Your task to perform on an android device: turn notification dots on Image 0: 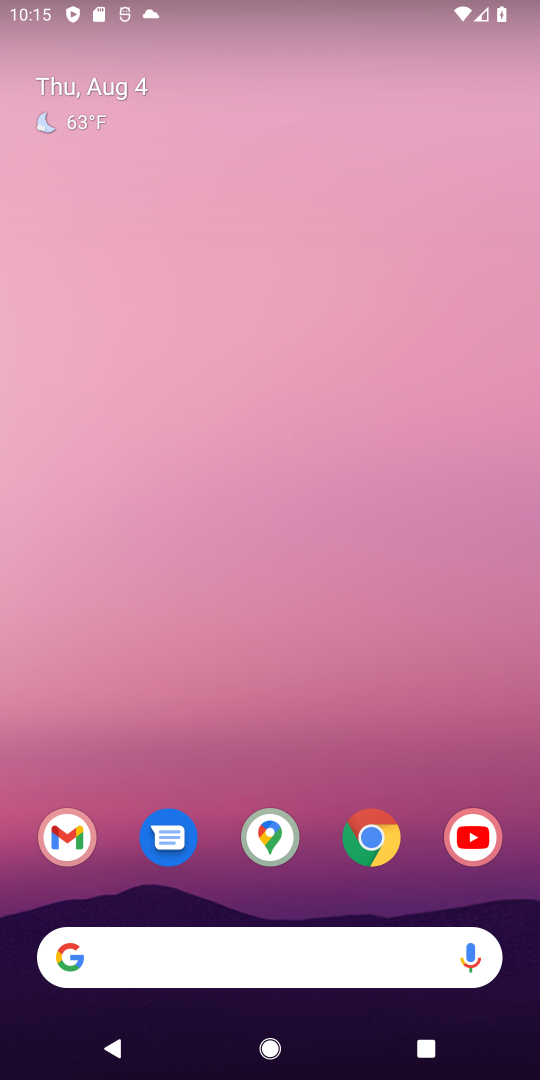
Step 0: drag from (174, 740) to (283, 175)
Your task to perform on an android device: turn notification dots on Image 1: 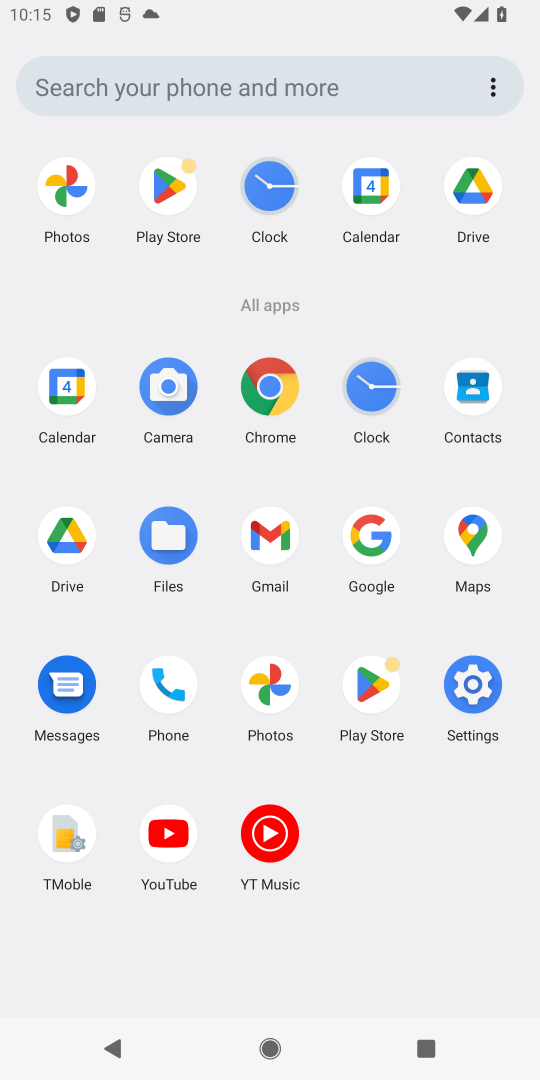
Step 1: click (478, 683)
Your task to perform on an android device: turn notification dots on Image 2: 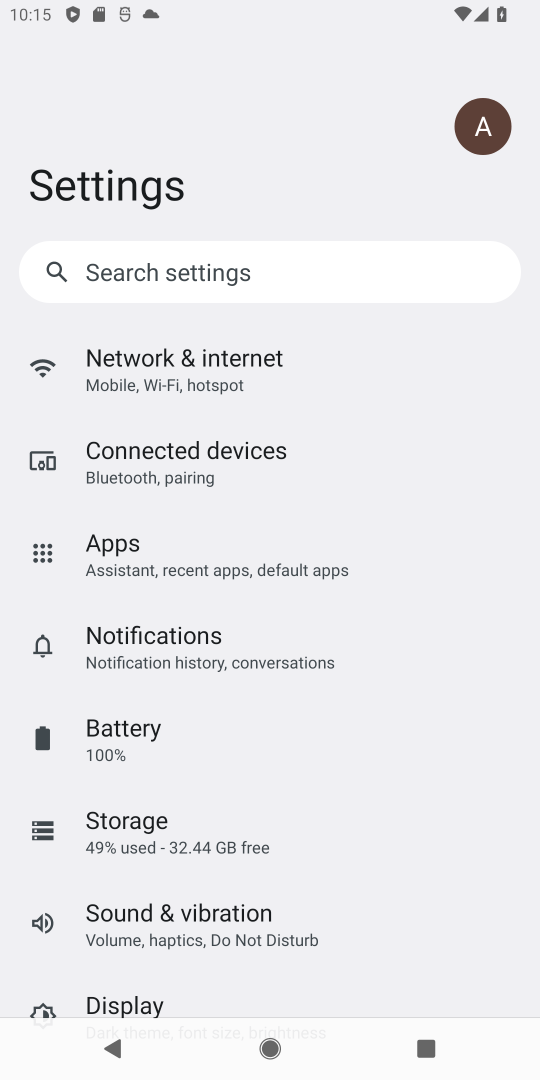
Step 2: click (213, 255)
Your task to perform on an android device: turn notification dots on Image 3: 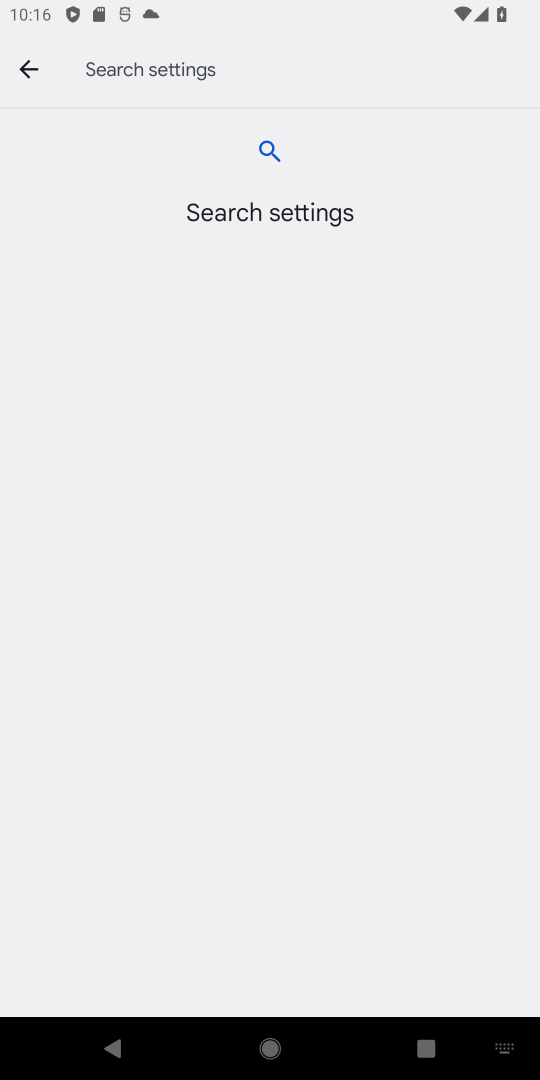
Step 3: type " notification dots  "
Your task to perform on an android device: turn notification dots on Image 4: 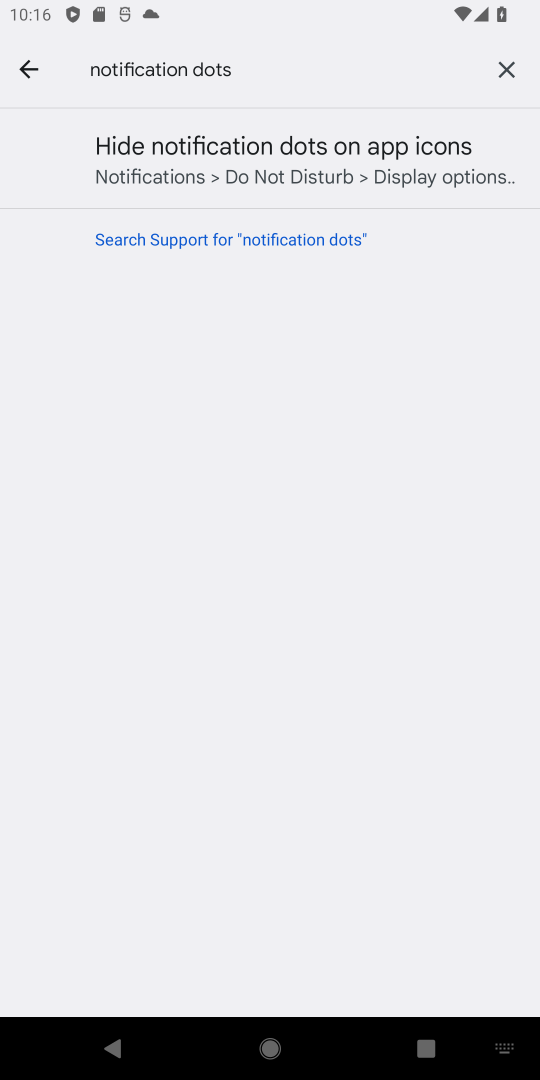
Step 4: click (272, 175)
Your task to perform on an android device: turn notification dots on Image 5: 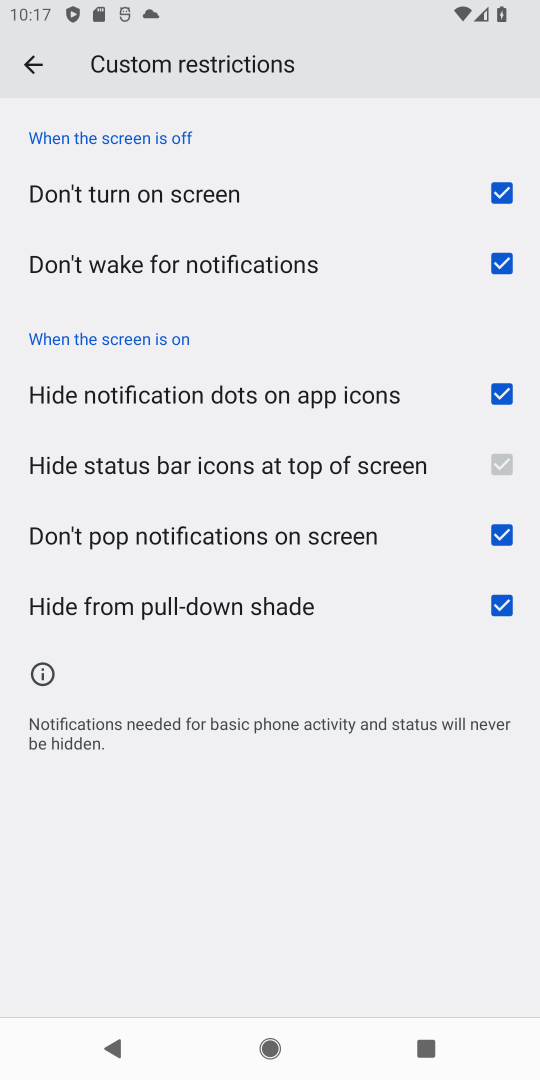
Step 5: task complete